Your task to perform on an android device: allow cookies in the chrome app Image 0: 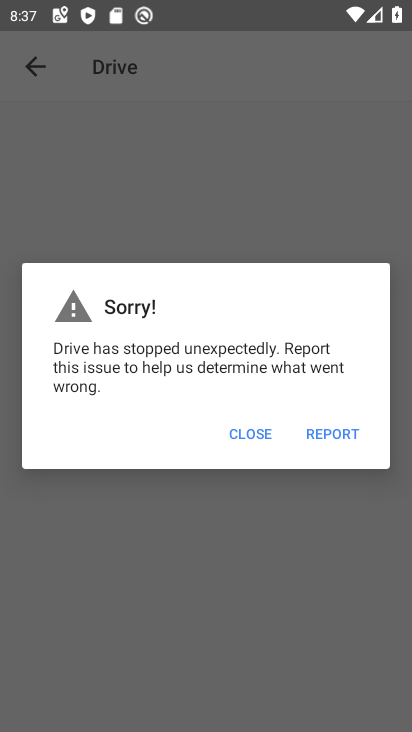
Step 0: press home button
Your task to perform on an android device: allow cookies in the chrome app Image 1: 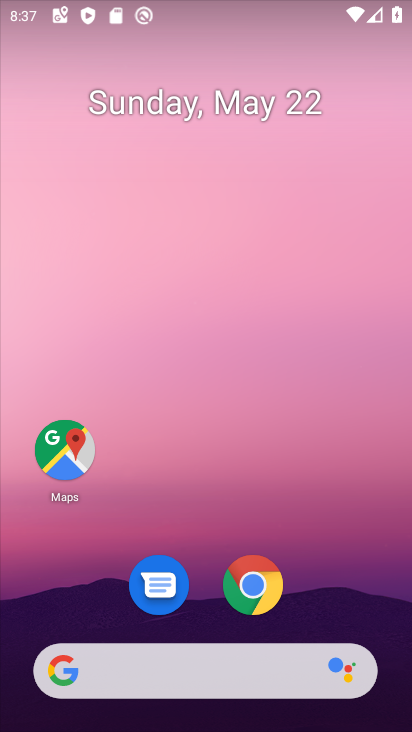
Step 1: click (246, 583)
Your task to perform on an android device: allow cookies in the chrome app Image 2: 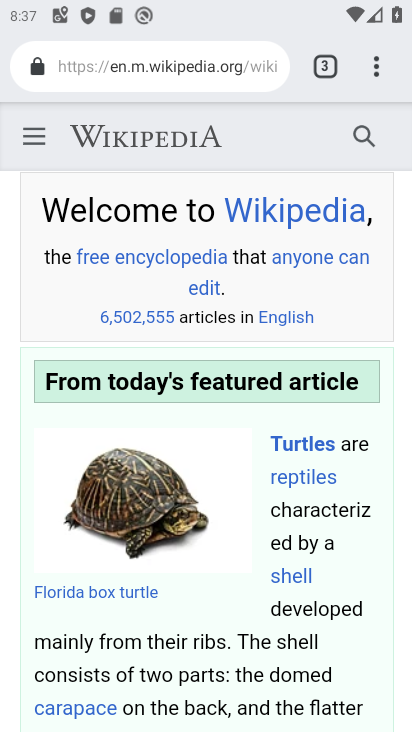
Step 2: click (375, 63)
Your task to perform on an android device: allow cookies in the chrome app Image 3: 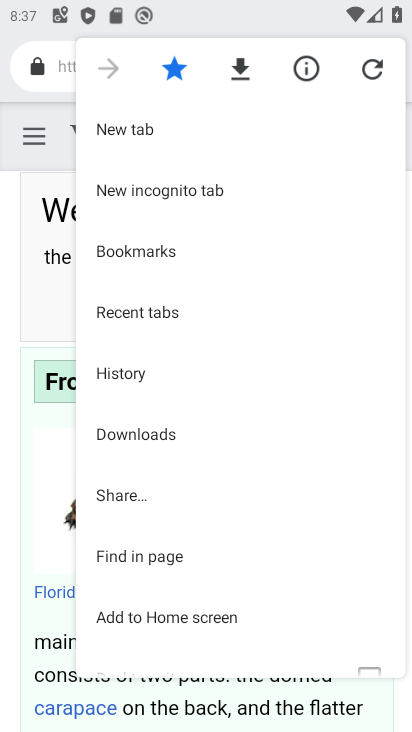
Step 3: drag from (200, 509) to (211, 208)
Your task to perform on an android device: allow cookies in the chrome app Image 4: 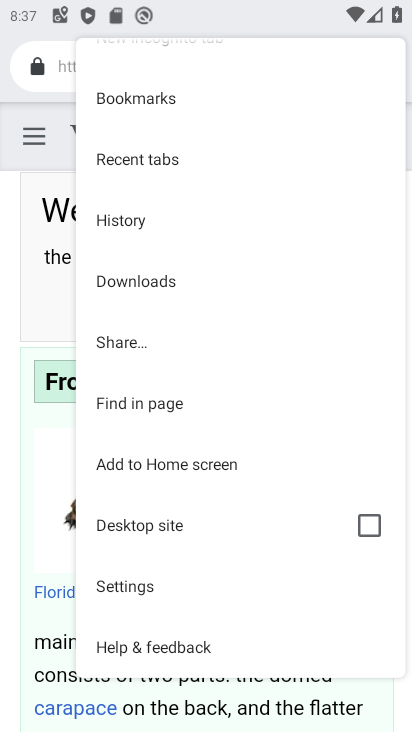
Step 4: click (150, 575)
Your task to perform on an android device: allow cookies in the chrome app Image 5: 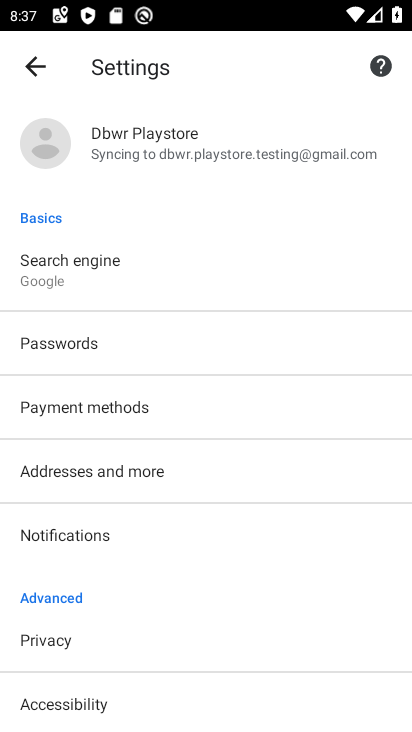
Step 5: drag from (173, 513) to (173, 176)
Your task to perform on an android device: allow cookies in the chrome app Image 6: 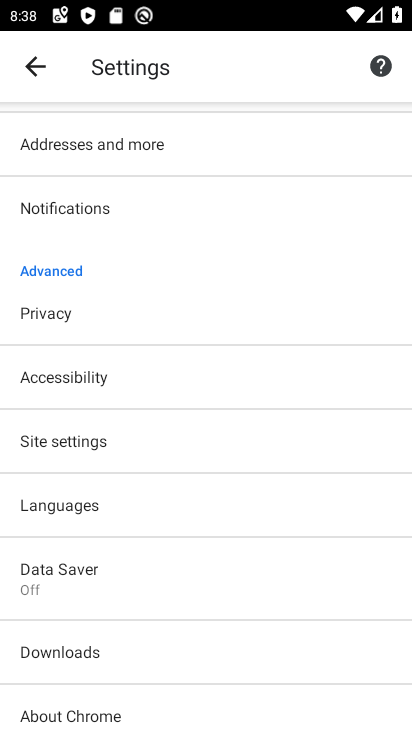
Step 6: click (176, 425)
Your task to perform on an android device: allow cookies in the chrome app Image 7: 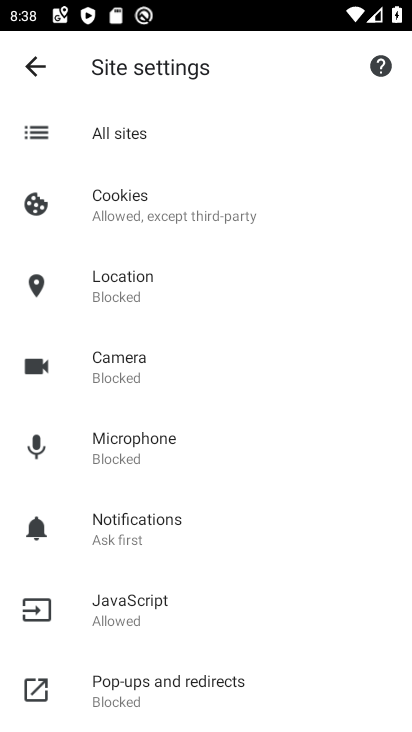
Step 7: click (224, 220)
Your task to perform on an android device: allow cookies in the chrome app Image 8: 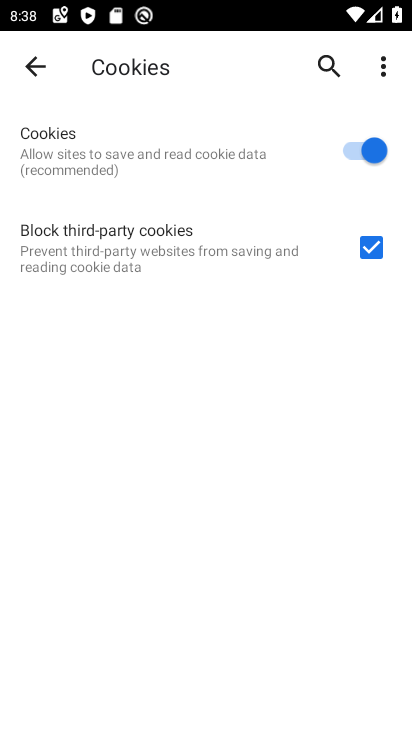
Step 8: task complete